Your task to perform on an android device: toggle pop-ups in chrome Image 0: 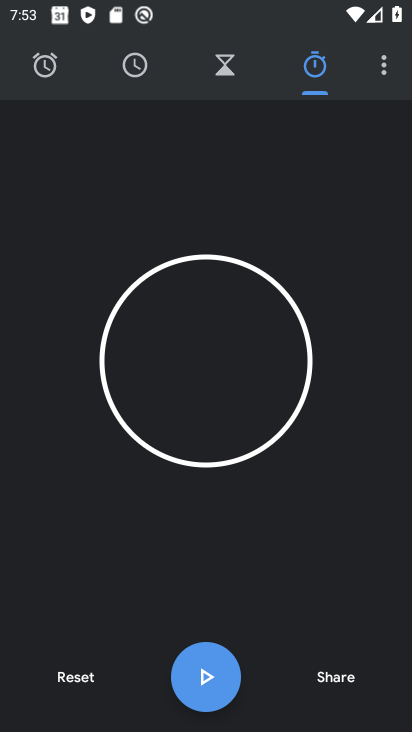
Step 0: press home button
Your task to perform on an android device: toggle pop-ups in chrome Image 1: 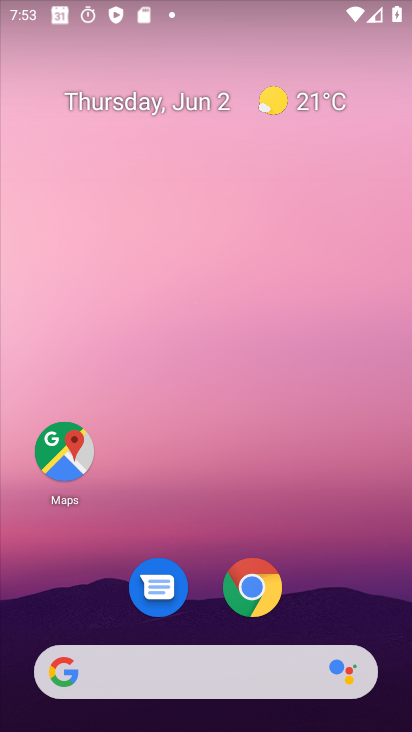
Step 1: click (253, 584)
Your task to perform on an android device: toggle pop-ups in chrome Image 2: 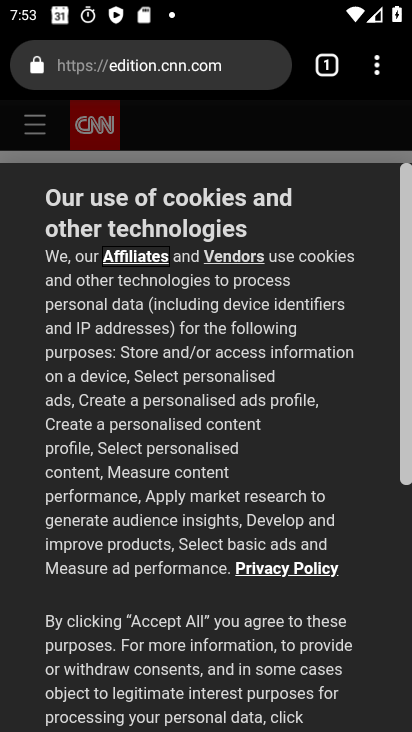
Step 2: click (378, 63)
Your task to perform on an android device: toggle pop-ups in chrome Image 3: 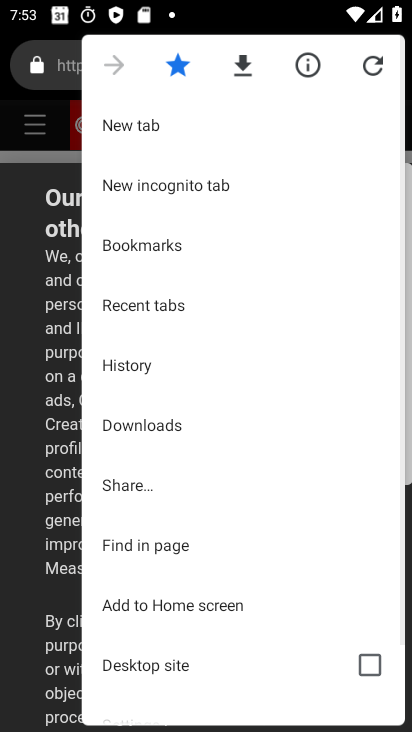
Step 3: drag from (245, 600) to (245, 250)
Your task to perform on an android device: toggle pop-ups in chrome Image 4: 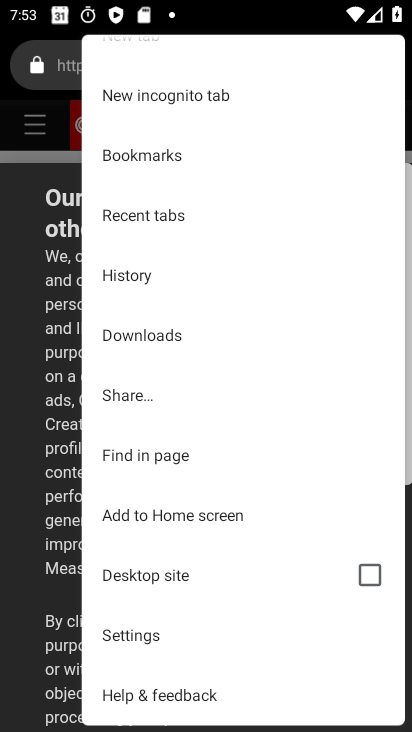
Step 4: click (142, 637)
Your task to perform on an android device: toggle pop-ups in chrome Image 5: 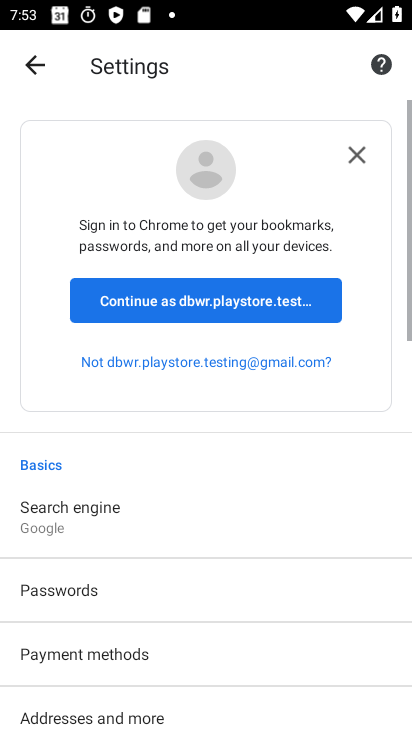
Step 5: drag from (195, 634) to (202, 178)
Your task to perform on an android device: toggle pop-ups in chrome Image 6: 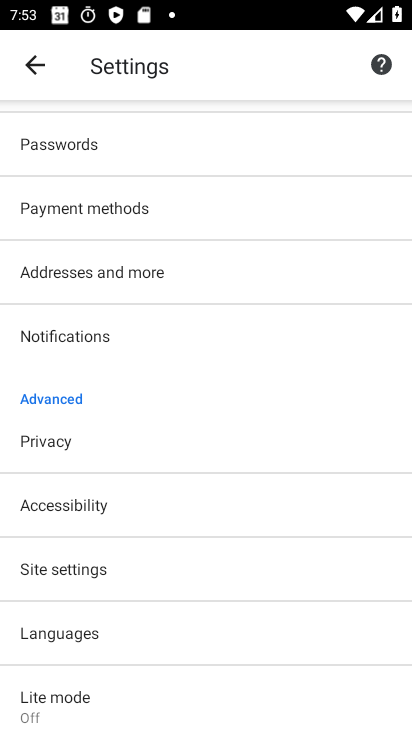
Step 6: click (99, 571)
Your task to perform on an android device: toggle pop-ups in chrome Image 7: 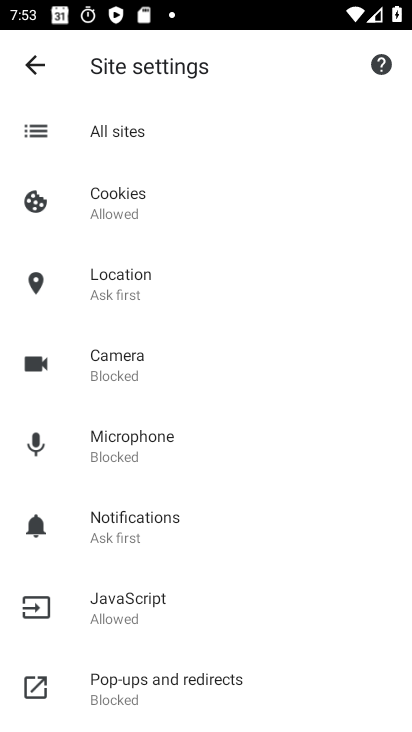
Step 7: drag from (222, 609) to (216, 480)
Your task to perform on an android device: toggle pop-ups in chrome Image 8: 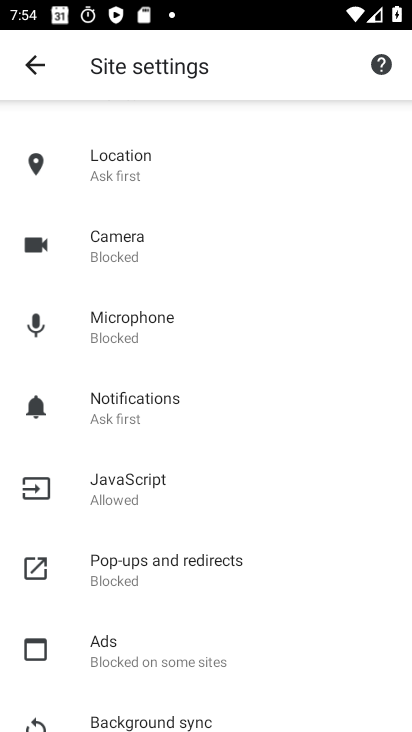
Step 8: click (115, 569)
Your task to perform on an android device: toggle pop-ups in chrome Image 9: 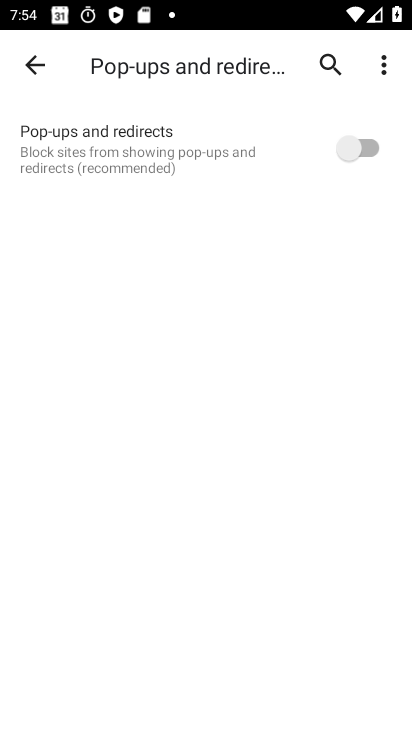
Step 9: click (353, 161)
Your task to perform on an android device: toggle pop-ups in chrome Image 10: 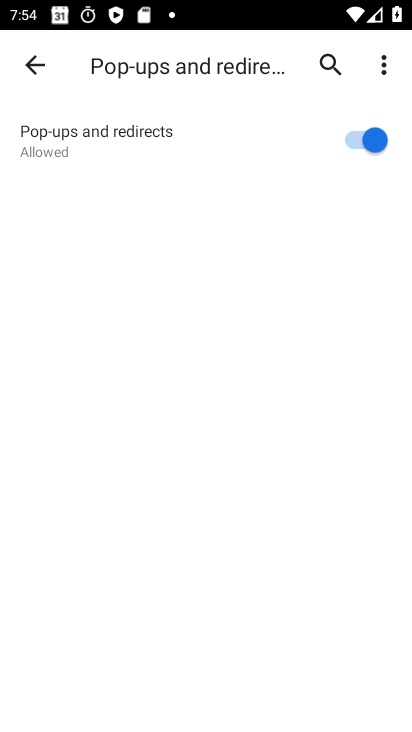
Step 10: task complete